Your task to perform on an android device: Go to Android settings Image 0: 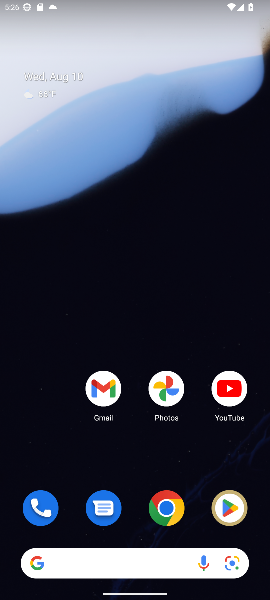
Step 0: press home button
Your task to perform on an android device: Go to Android settings Image 1: 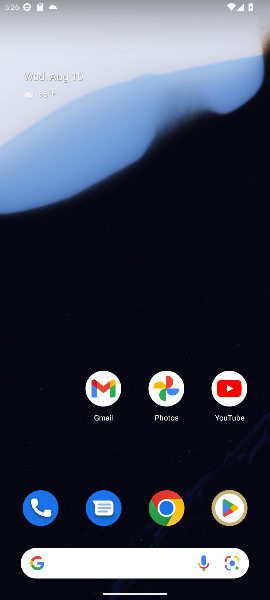
Step 1: drag from (58, 450) to (82, 64)
Your task to perform on an android device: Go to Android settings Image 2: 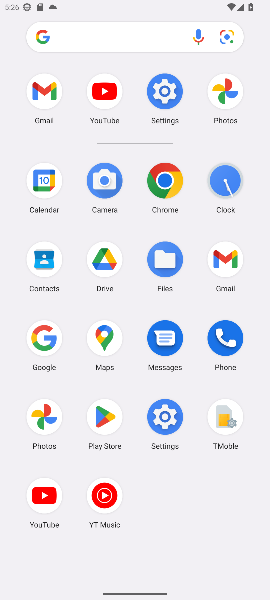
Step 2: click (174, 88)
Your task to perform on an android device: Go to Android settings Image 3: 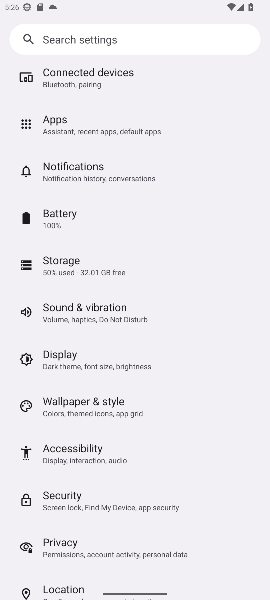
Step 3: task complete